Your task to perform on an android device: change the clock style Image 0: 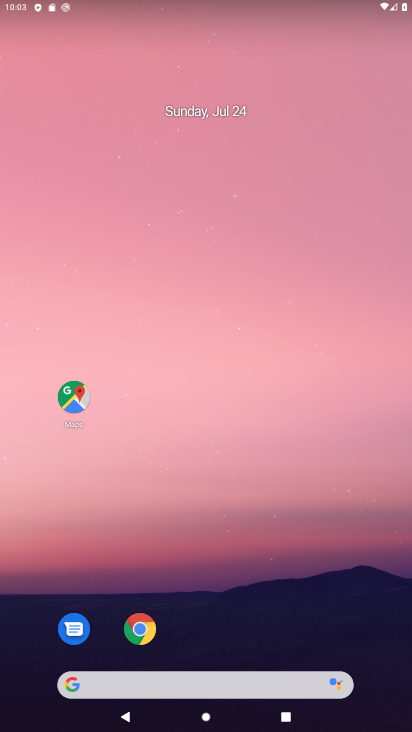
Step 0: drag from (176, 685) to (397, 388)
Your task to perform on an android device: change the clock style Image 1: 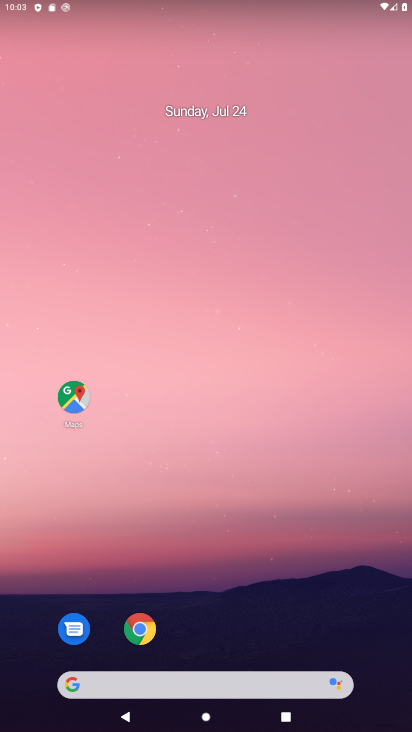
Step 1: drag from (211, 691) to (281, 78)
Your task to perform on an android device: change the clock style Image 2: 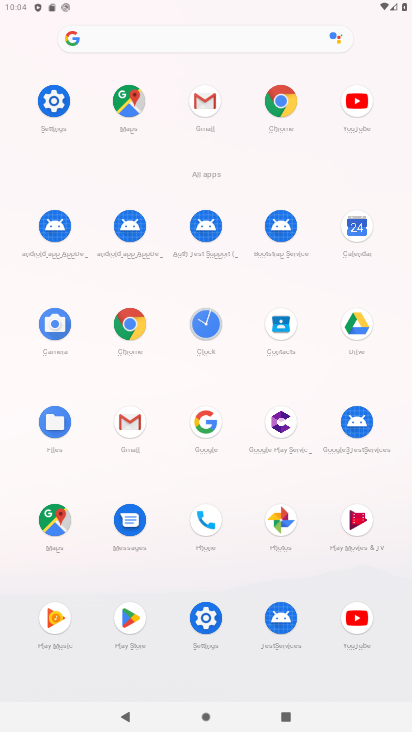
Step 2: click (208, 323)
Your task to perform on an android device: change the clock style Image 3: 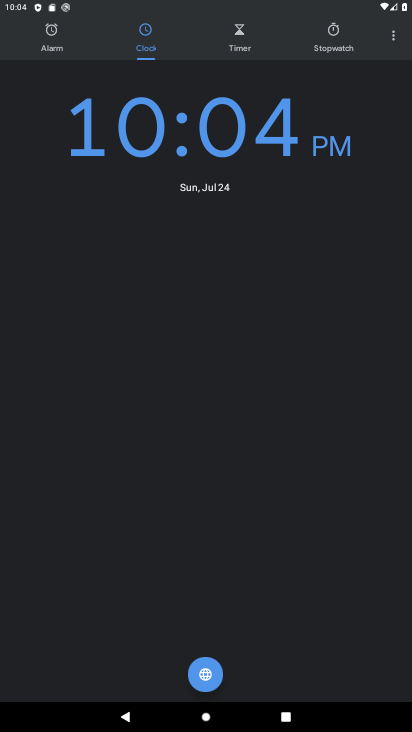
Step 3: click (394, 35)
Your task to perform on an android device: change the clock style Image 4: 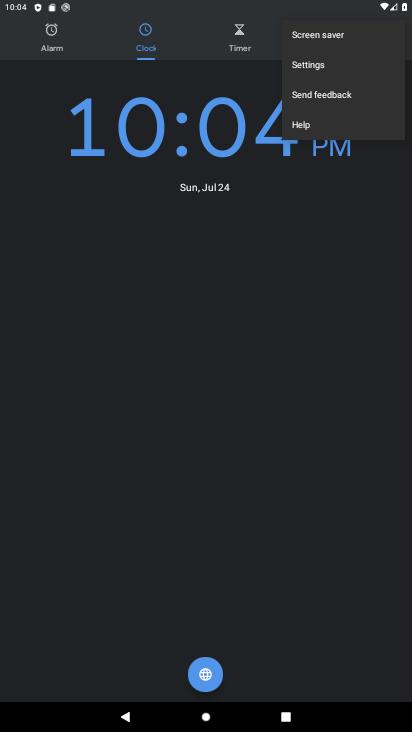
Step 4: click (320, 69)
Your task to perform on an android device: change the clock style Image 5: 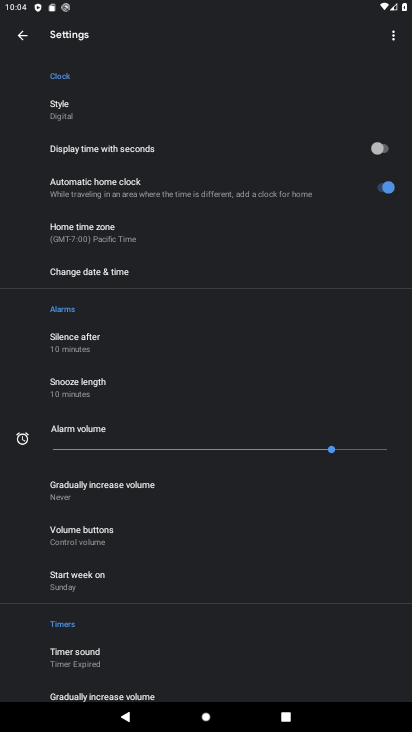
Step 5: click (69, 116)
Your task to perform on an android device: change the clock style Image 6: 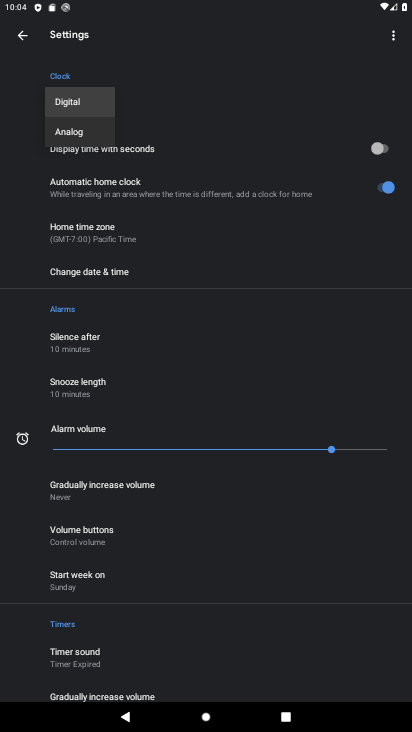
Step 6: click (73, 132)
Your task to perform on an android device: change the clock style Image 7: 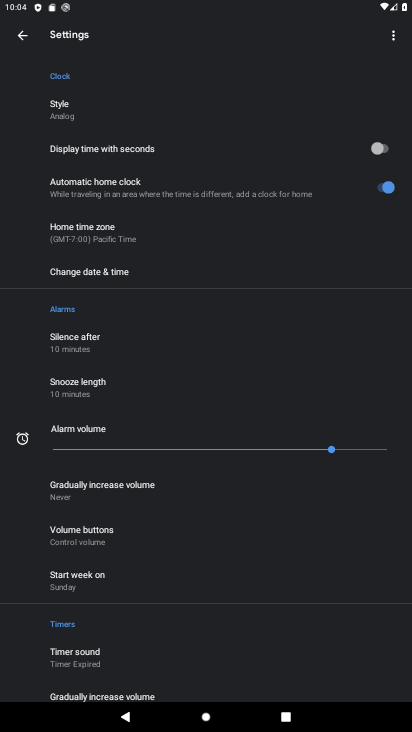
Step 7: task complete